Your task to perform on an android device: Open eBay Image 0: 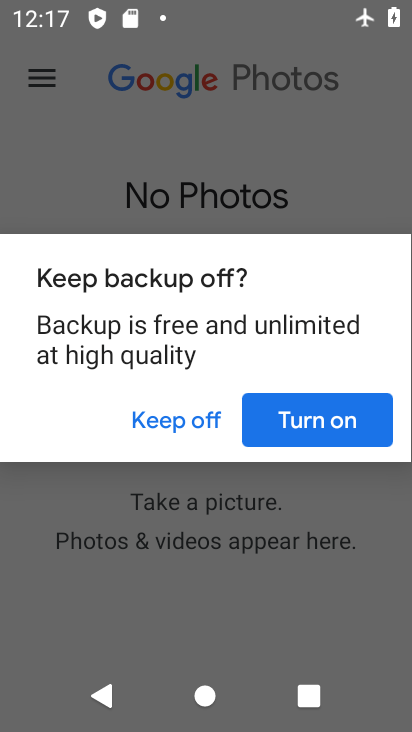
Step 0: press back button
Your task to perform on an android device: Open eBay Image 1: 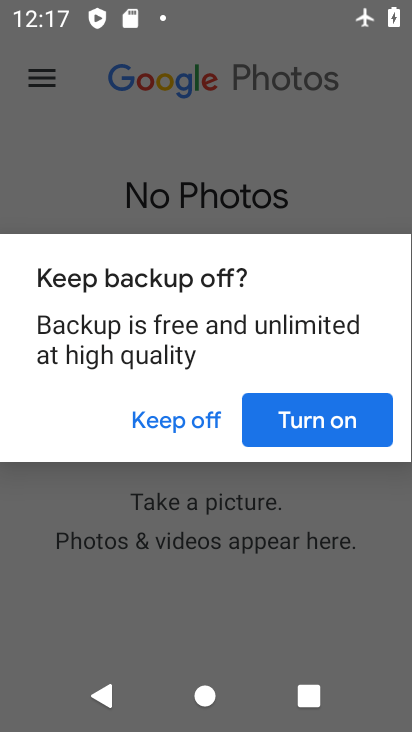
Step 1: press home button
Your task to perform on an android device: Open eBay Image 2: 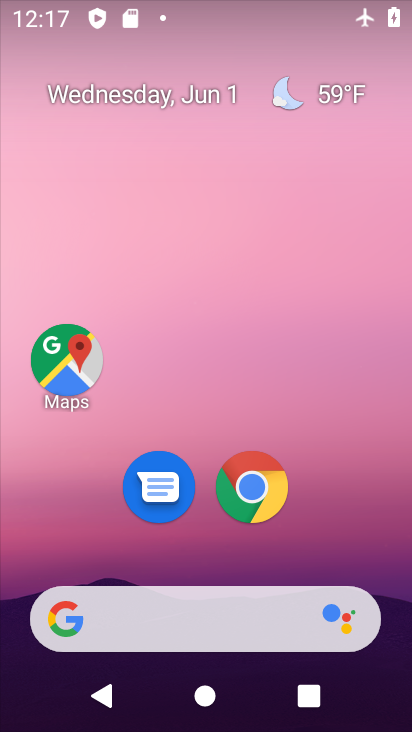
Step 2: click (258, 484)
Your task to perform on an android device: Open eBay Image 3: 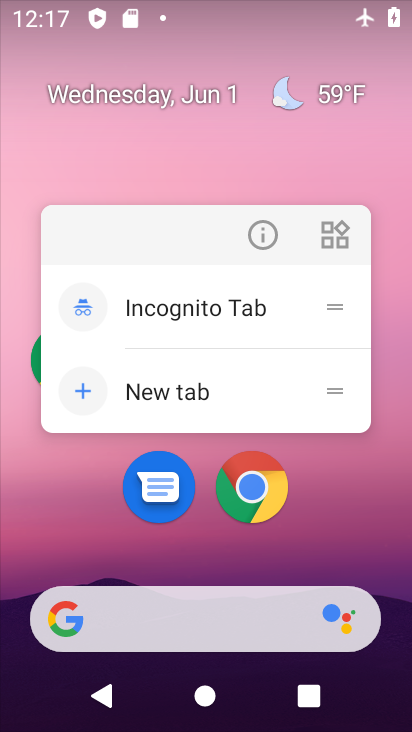
Step 3: click (258, 495)
Your task to perform on an android device: Open eBay Image 4: 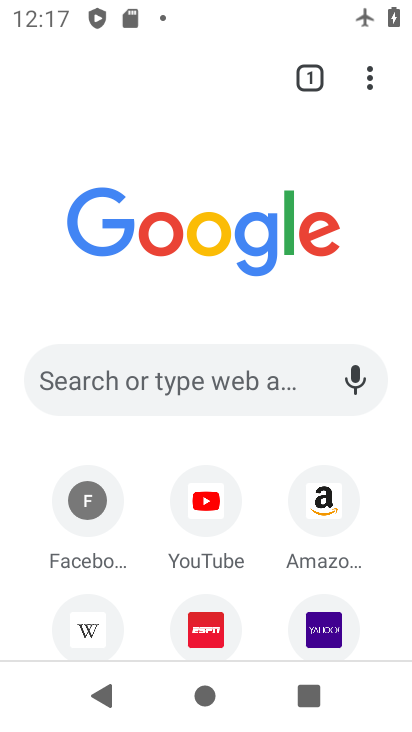
Step 4: drag from (205, 608) to (258, 253)
Your task to perform on an android device: Open eBay Image 5: 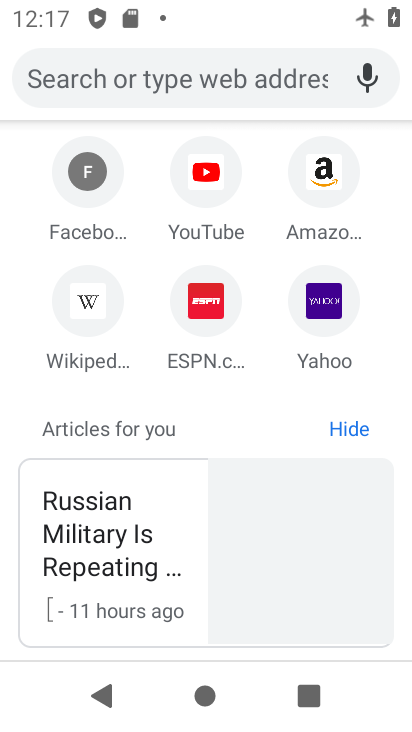
Step 5: click (141, 74)
Your task to perform on an android device: Open eBay Image 6: 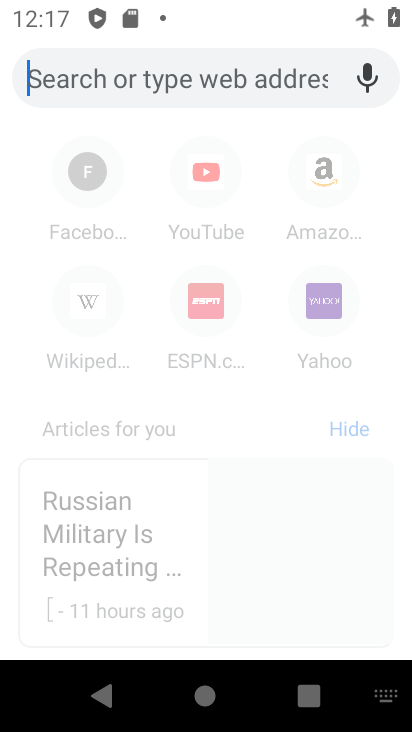
Step 6: type "ebay"
Your task to perform on an android device: Open eBay Image 7: 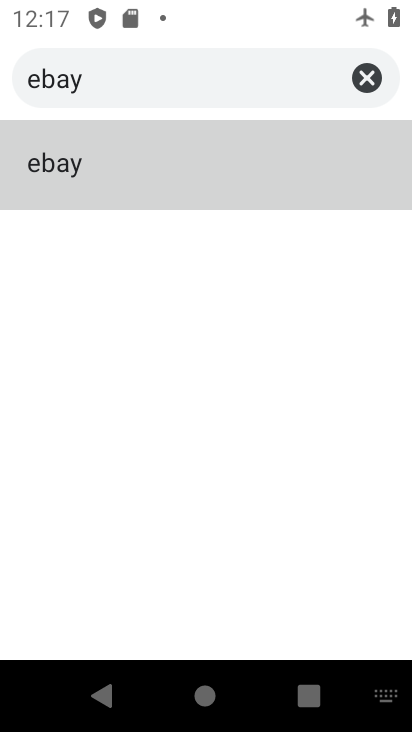
Step 7: click (124, 166)
Your task to perform on an android device: Open eBay Image 8: 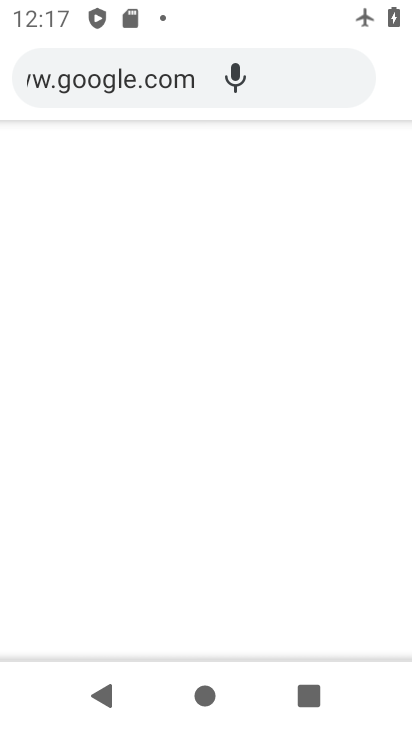
Step 8: drag from (287, 10) to (277, 412)
Your task to perform on an android device: Open eBay Image 9: 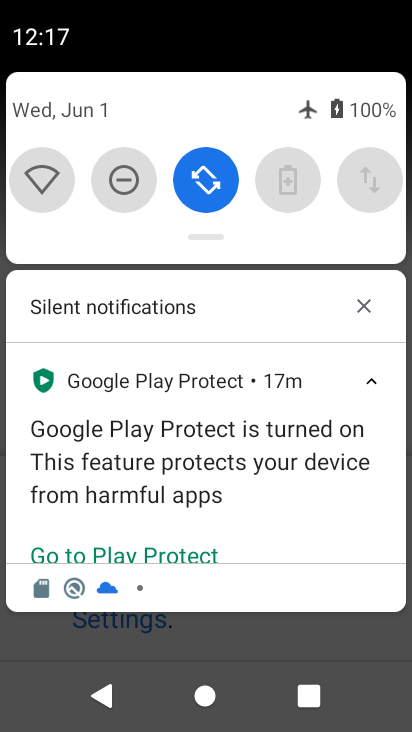
Step 9: drag from (209, 235) to (206, 562)
Your task to perform on an android device: Open eBay Image 10: 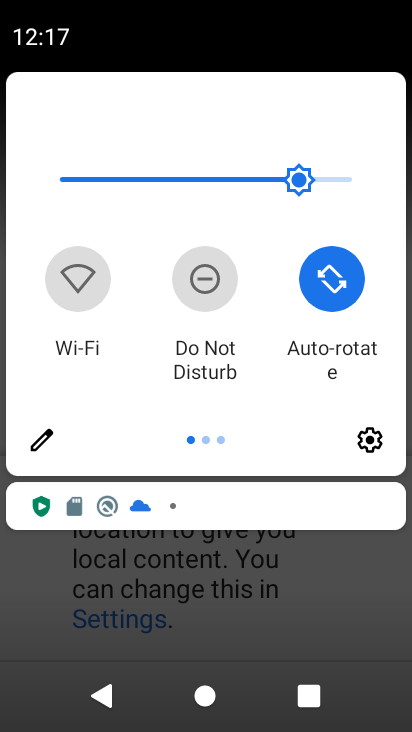
Step 10: drag from (289, 297) to (41, 320)
Your task to perform on an android device: Open eBay Image 11: 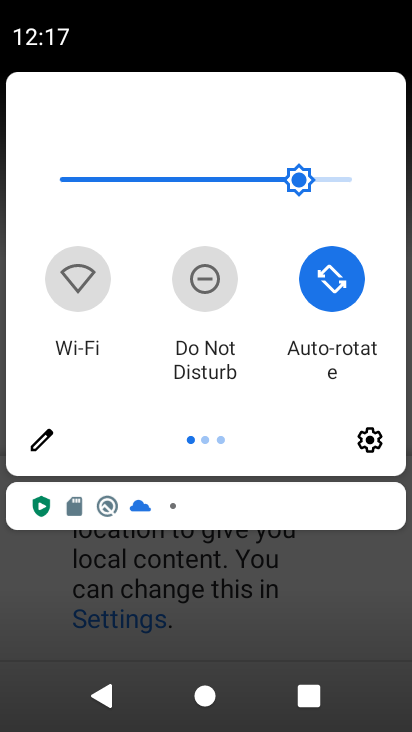
Step 11: drag from (314, 278) to (1, 308)
Your task to perform on an android device: Open eBay Image 12: 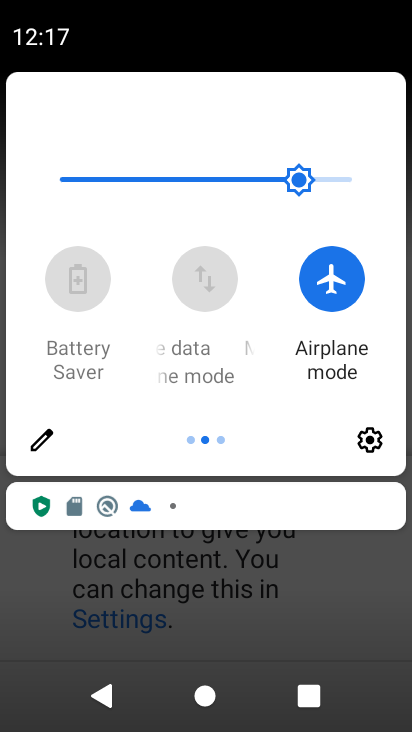
Step 12: click (344, 280)
Your task to perform on an android device: Open eBay Image 13: 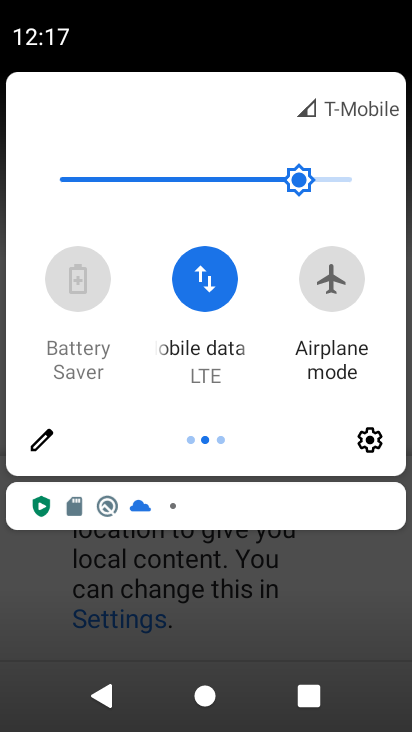
Step 13: click (267, 596)
Your task to perform on an android device: Open eBay Image 14: 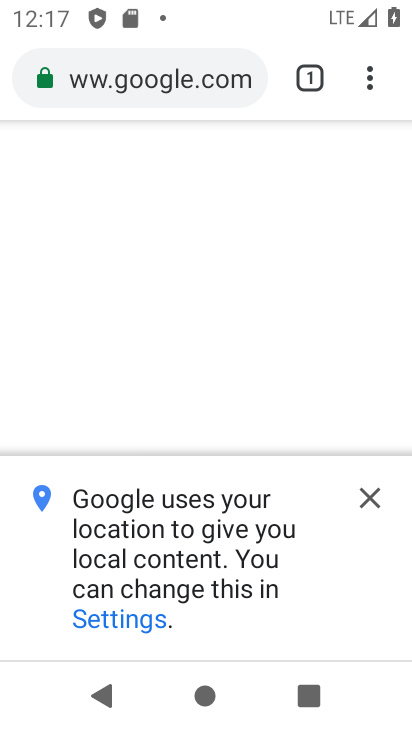
Step 14: click (376, 500)
Your task to perform on an android device: Open eBay Image 15: 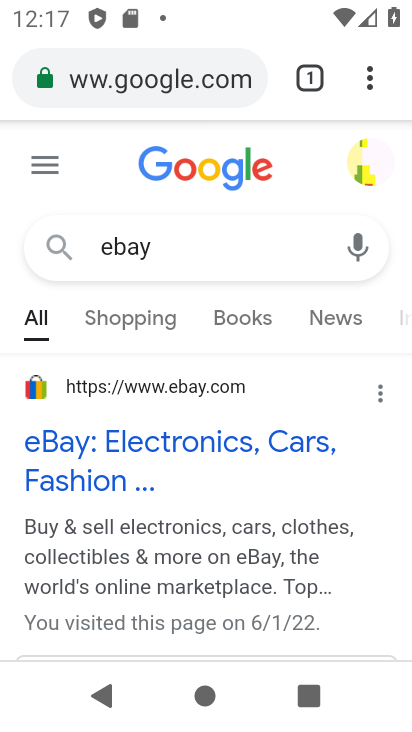
Step 15: click (143, 458)
Your task to perform on an android device: Open eBay Image 16: 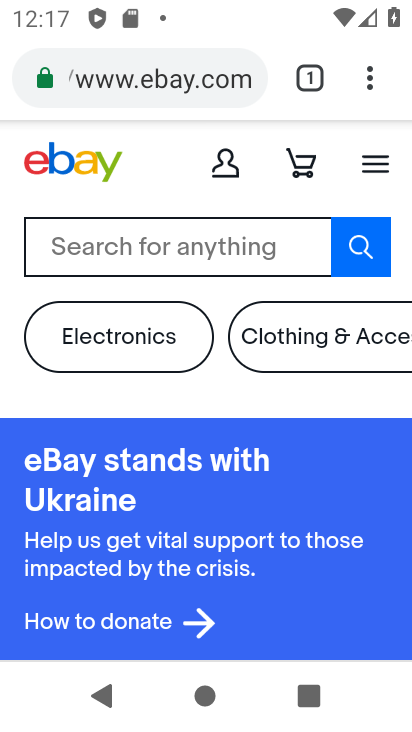
Step 16: task complete